Your task to perform on an android device: Go to Android settings Image 0: 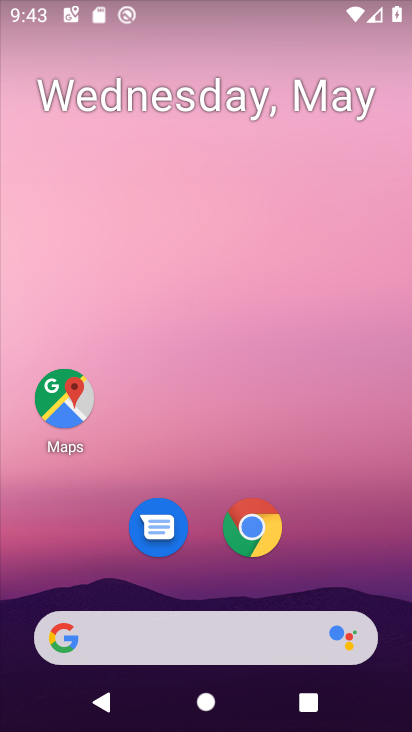
Step 0: drag from (198, 584) to (262, 0)
Your task to perform on an android device: Go to Android settings Image 1: 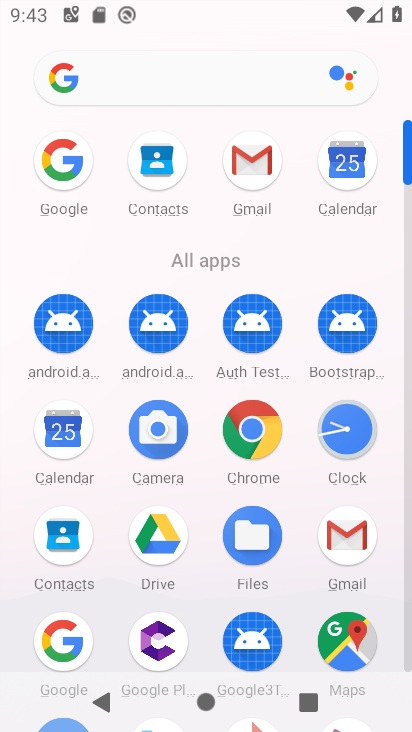
Step 1: drag from (201, 605) to (267, 106)
Your task to perform on an android device: Go to Android settings Image 2: 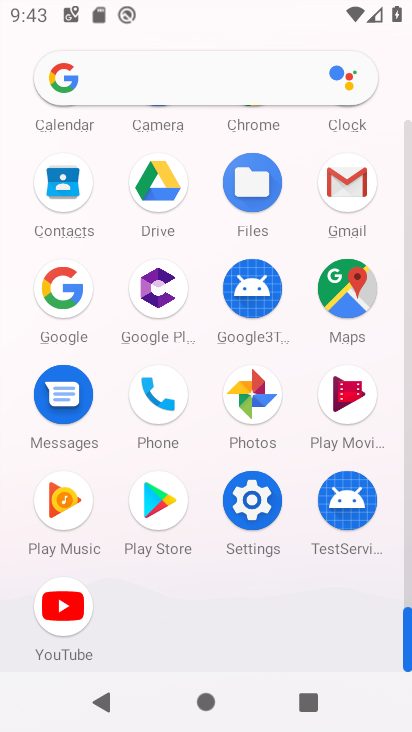
Step 2: click (259, 510)
Your task to perform on an android device: Go to Android settings Image 3: 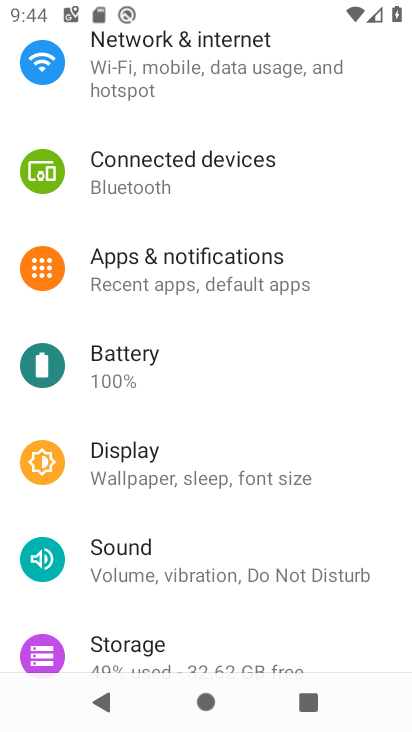
Step 3: task complete